Your task to perform on an android device: change text size in settings app Image 0: 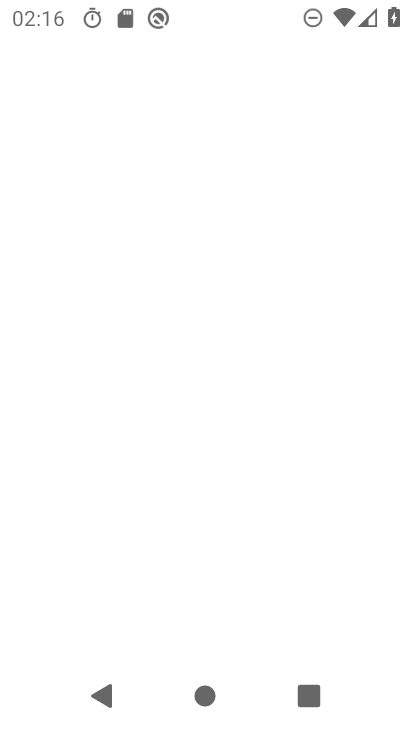
Step 0: press home button
Your task to perform on an android device: change text size in settings app Image 1: 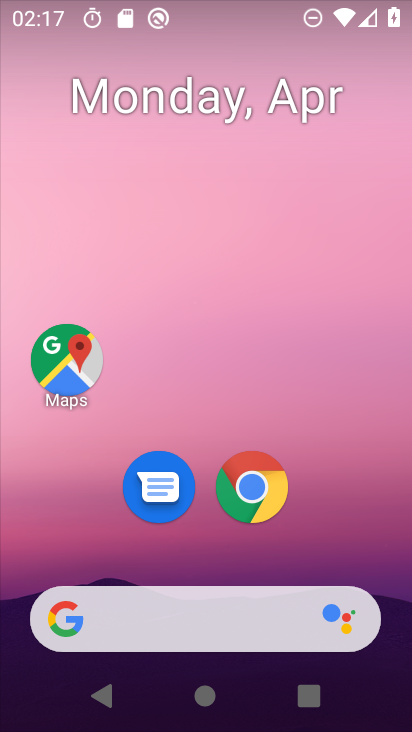
Step 1: drag from (291, 643) to (284, 174)
Your task to perform on an android device: change text size in settings app Image 2: 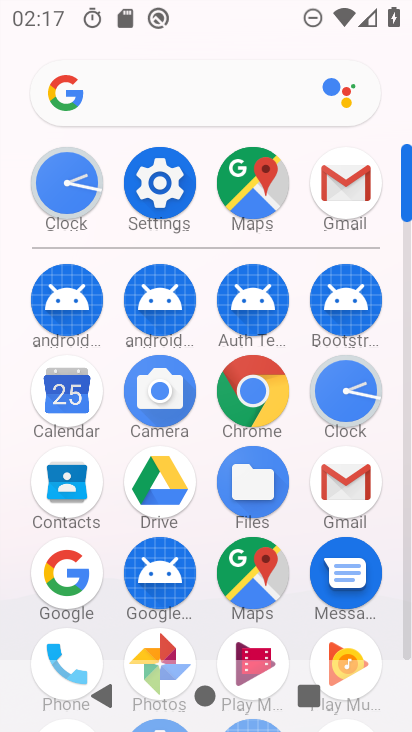
Step 2: click (167, 218)
Your task to perform on an android device: change text size in settings app Image 3: 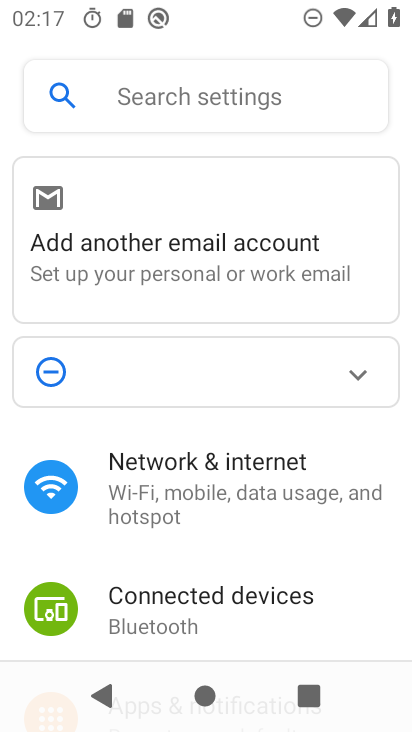
Step 3: click (190, 97)
Your task to perform on an android device: change text size in settings app Image 4: 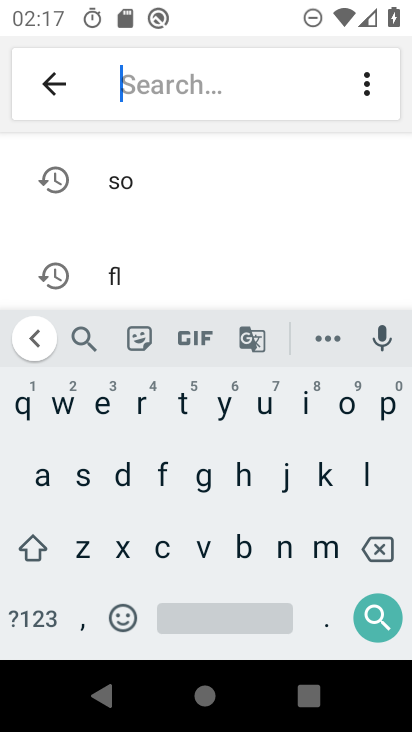
Step 4: click (86, 467)
Your task to perform on an android device: change text size in settings app Image 5: 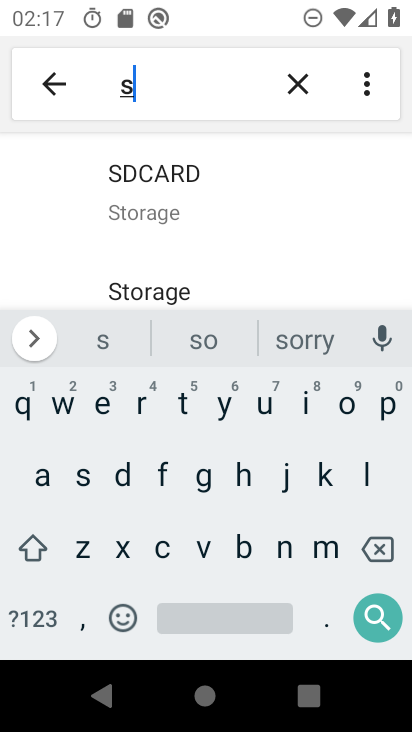
Step 5: click (310, 409)
Your task to perform on an android device: change text size in settings app Image 6: 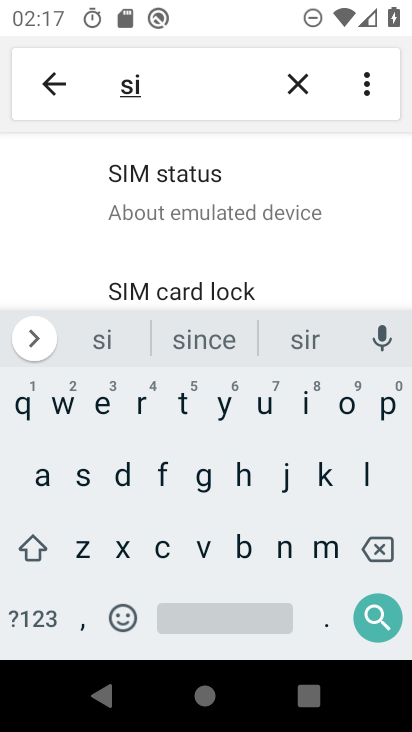
Step 6: click (85, 555)
Your task to perform on an android device: change text size in settings app Image 7: 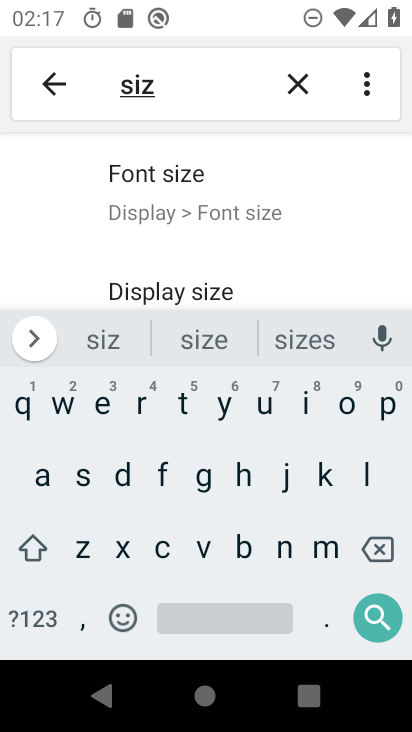
Step 7: click (154, 230)
Your task to perform on an android device: change text size in settings app Image 8: 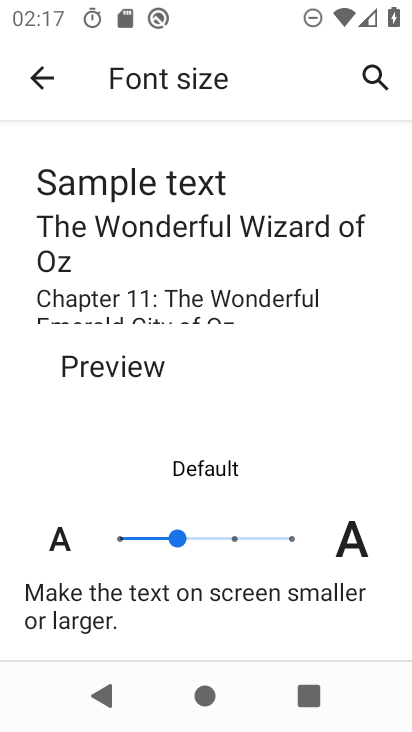
Step 8: click (125, 533)
Your task to perform on an android device: change text size in settings app Image 9: 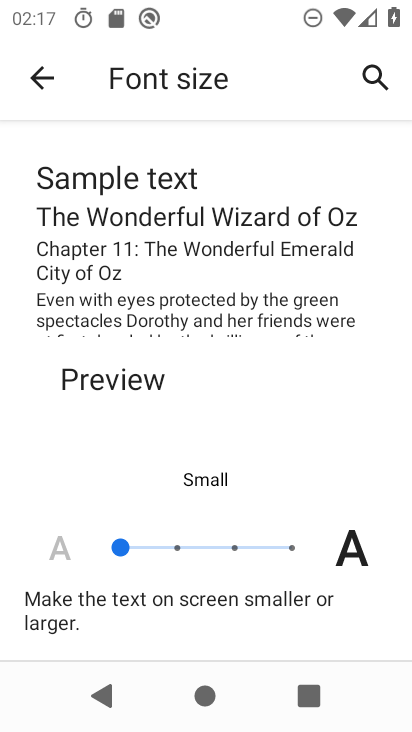
Step 9: task complete